Your task to perform on an android device: Search for bose quietcomfort 35 on amazon.com, select the first entry, and add it to the cart. Image 0: 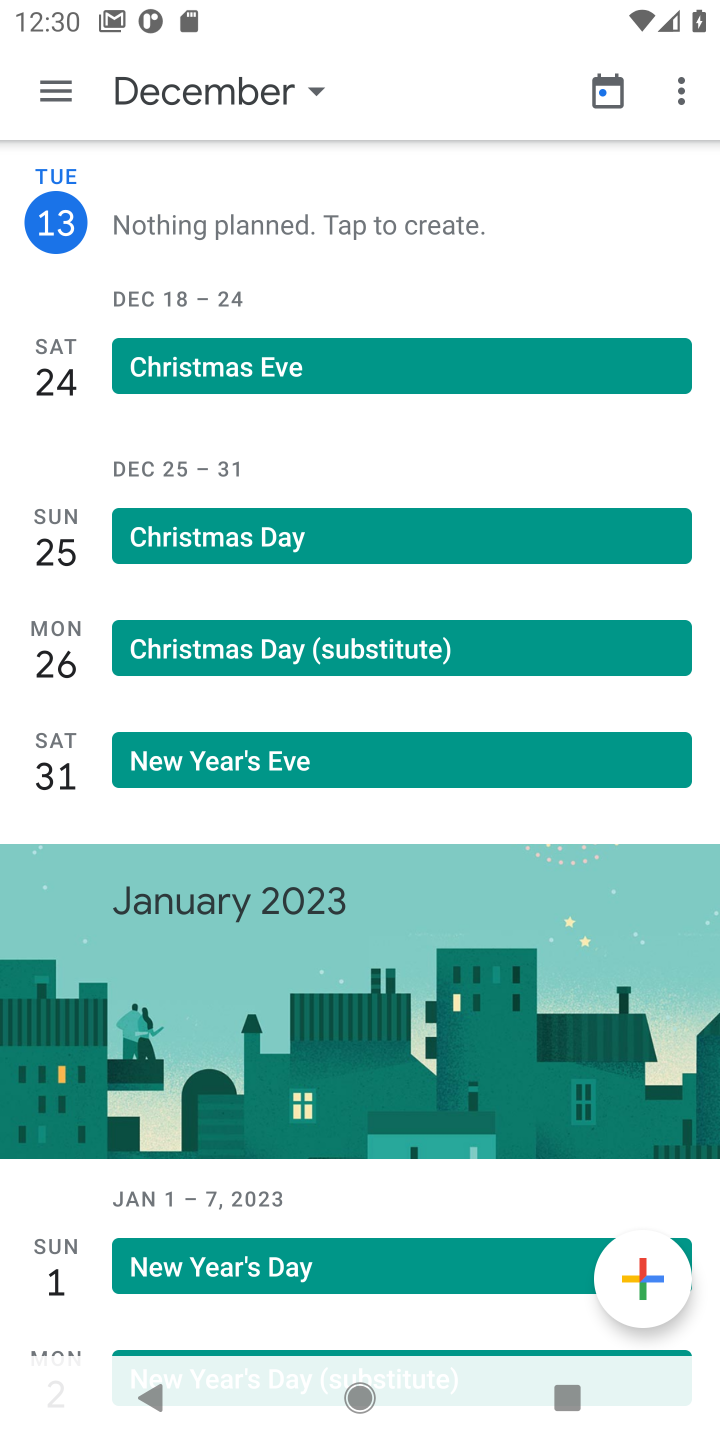
Step 0: press home button
Your task to perform on an android device: Search for bose quietcomfort 35 on amazon.com, select the first entry, and add it to the cart. Image 1: 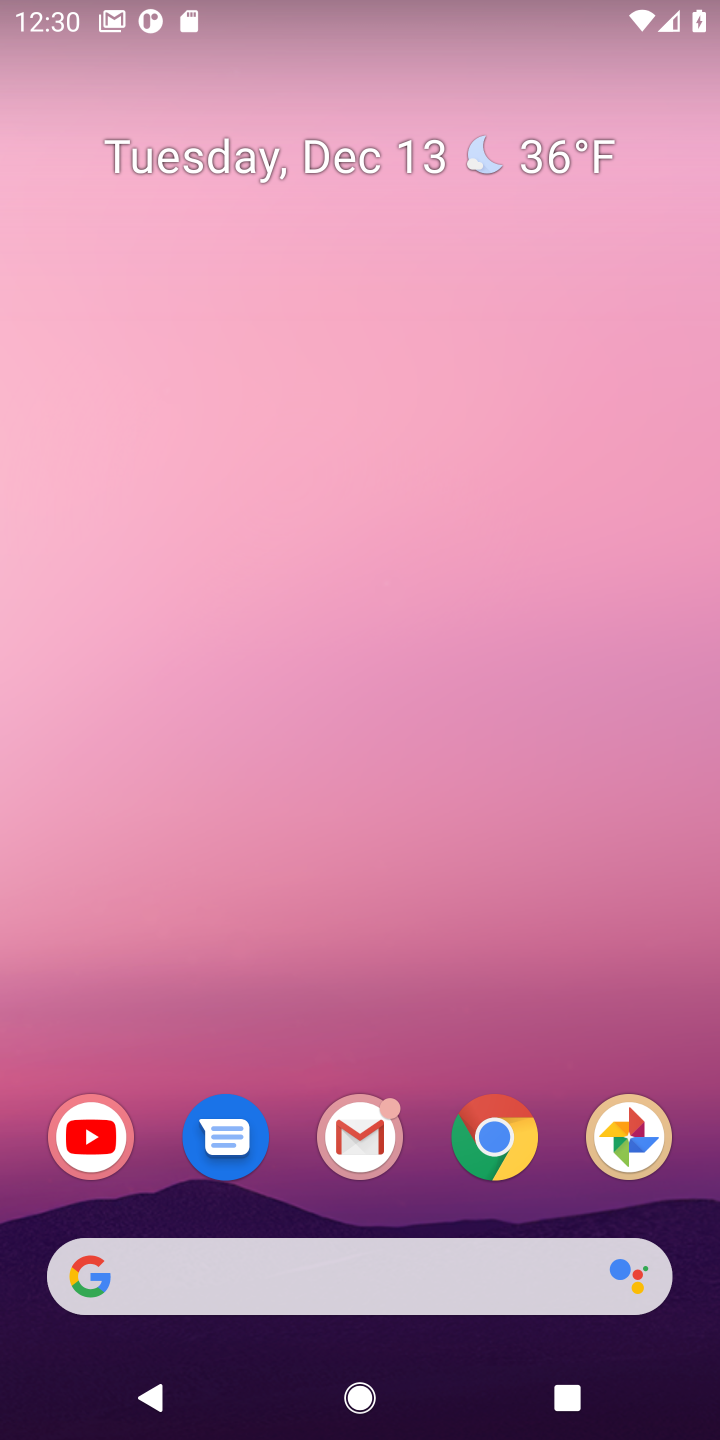
Step 1: click (286, 1248)
Your task to perform on an android device: Search for bose quietcomfort 35 on amazon.com, select the first entry, and add it to the cart. Image 2: 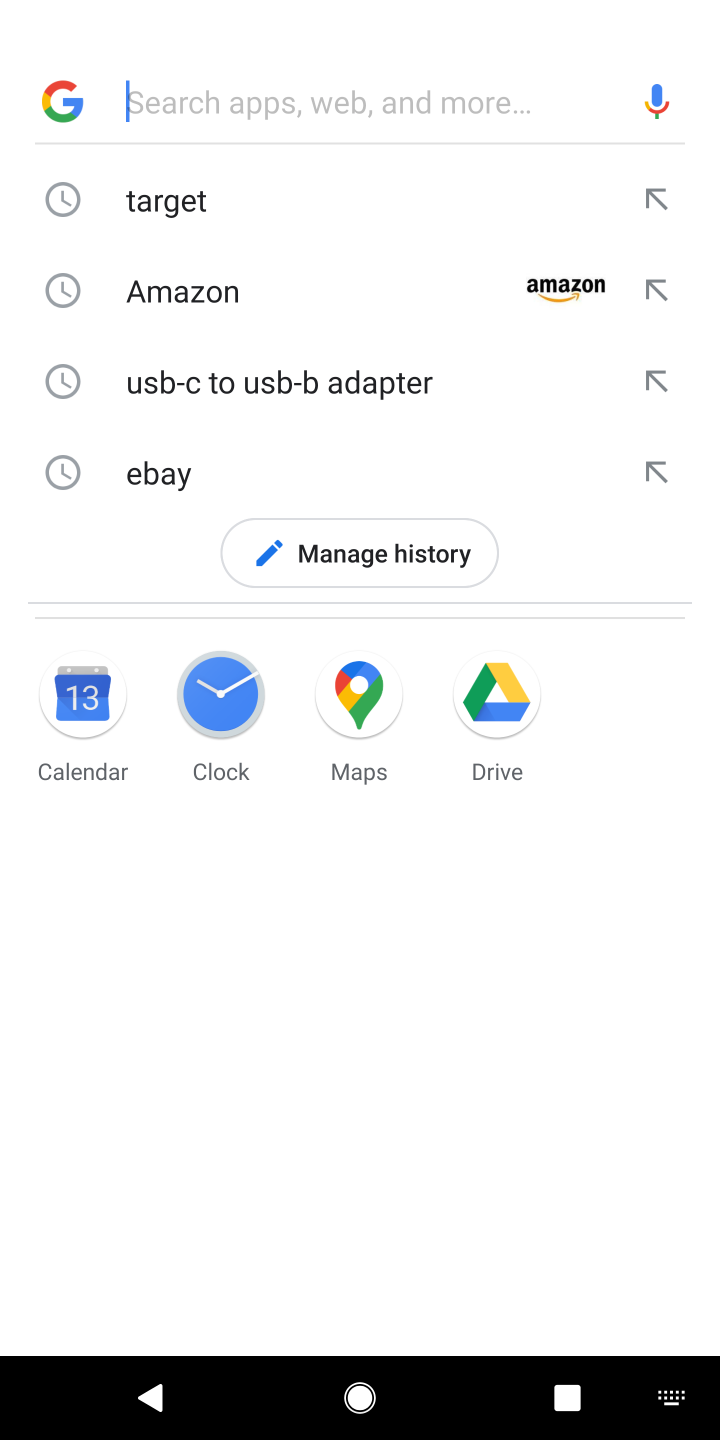
Step 2: click (356, 308)
Your task to perform on an android device: Search for bose quietcomfort 35 on amazon.com, select the first entry, and add it to the cart. Image 3: 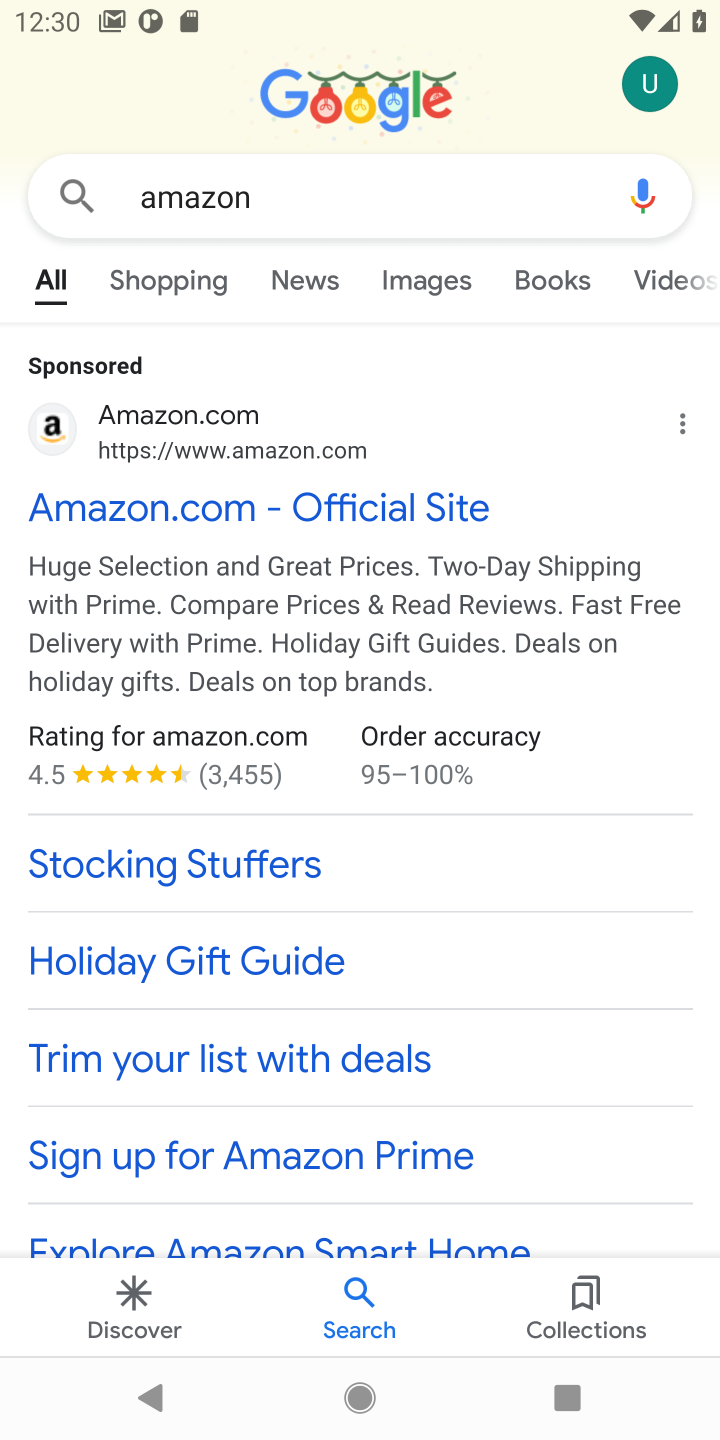
Step 3: click (245, 508)
Your task to perform on an android device: Search for bose quietcomfort 35 on amazon.com, select the first entry, and add it to the cart. Image 4: 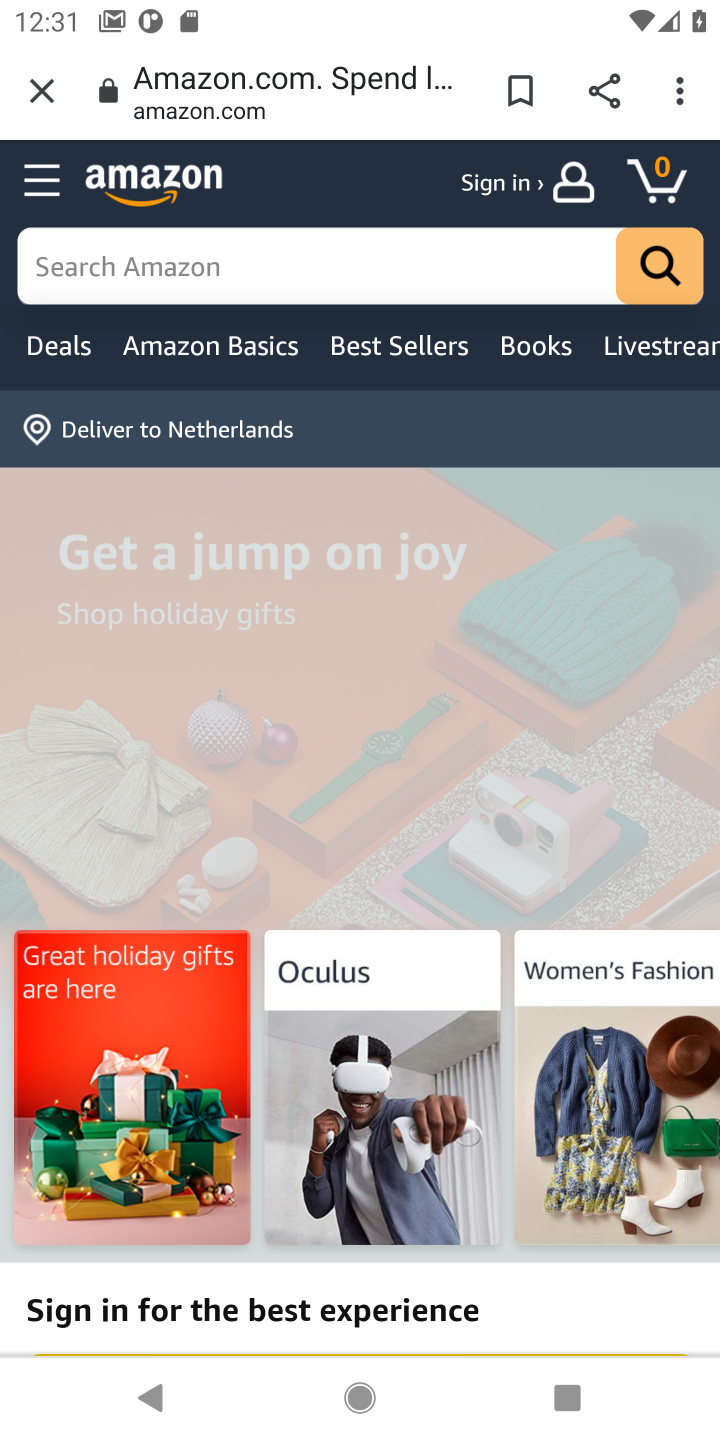
Step 4: click (226, 273)
Your task to perform on an android device: Search for bose quietcomfort 35 on amazon.com, select the first entry, and add it to the cart. Image 5: 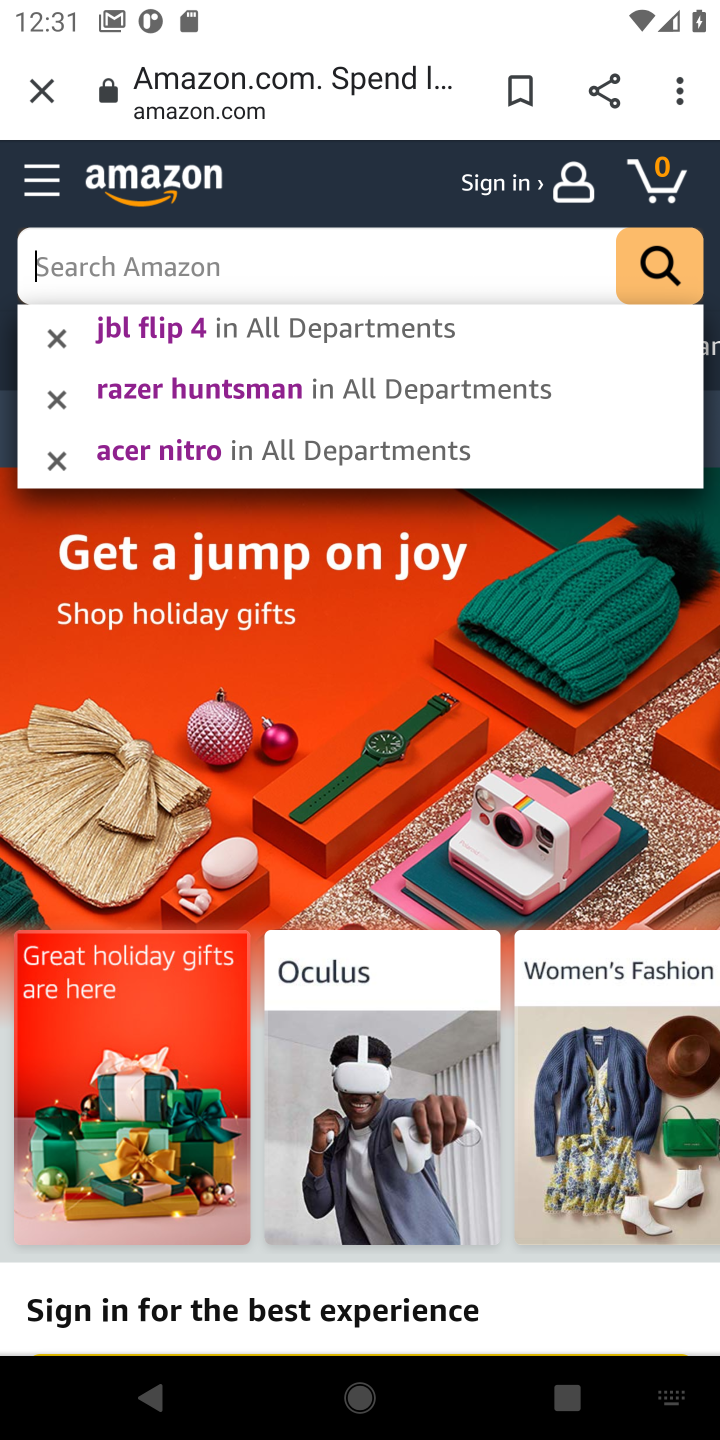
Step 5: type "quietcomfort 35"
Your task to perform on an android device: Search for bose quietcomfort 35 on amazon.com, select the first entry, and add it to the cart. Image 6: 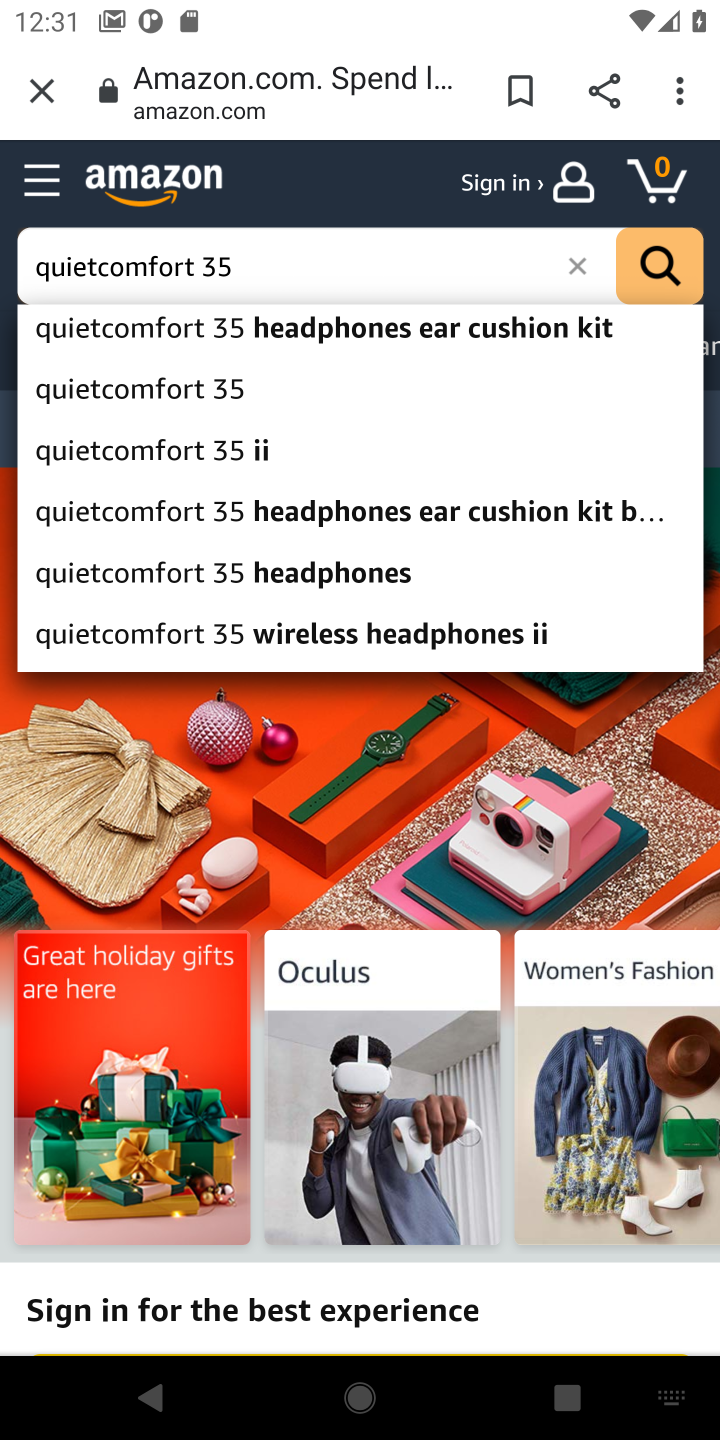
Step 6: click (258, 390)
Your task to perform on an android device: Search for bose quietcomfort 35 on amazon.com, select the first entry, and add it to the cart. Image 7: 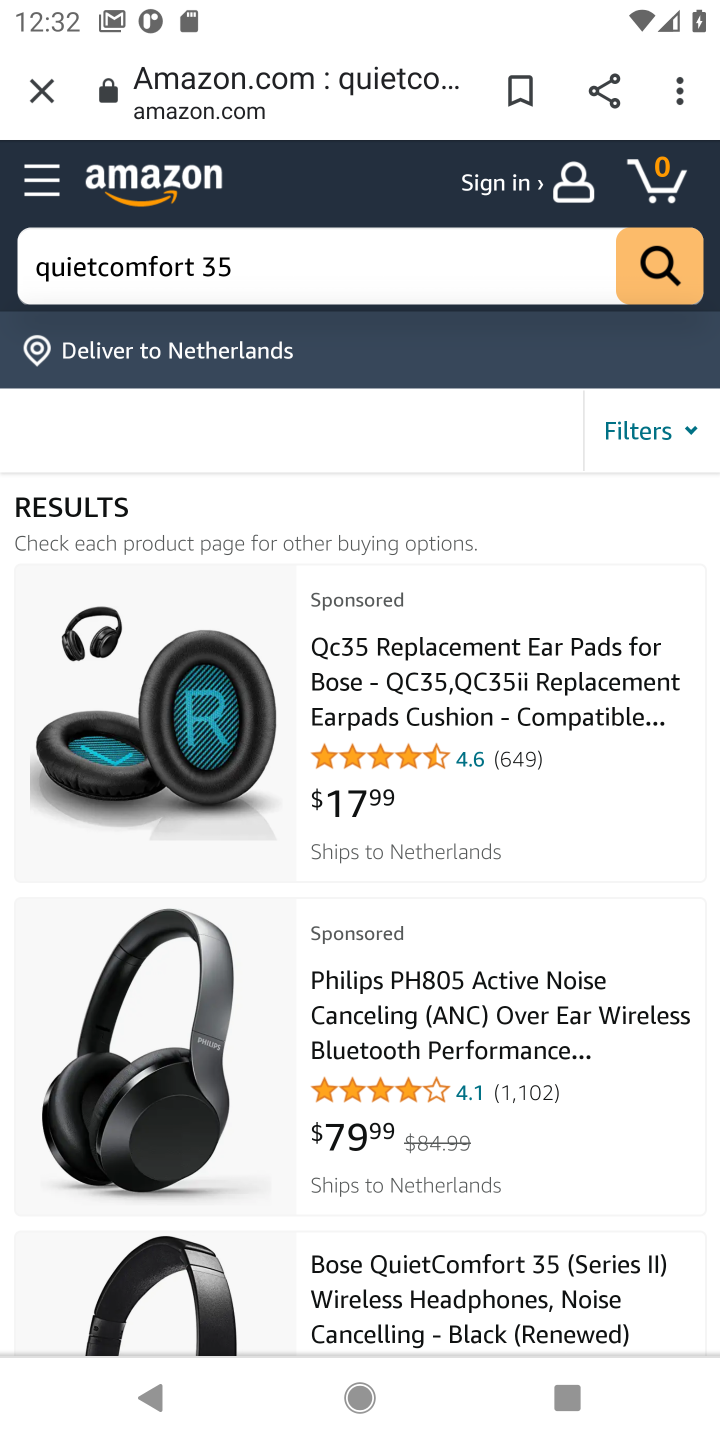
Step 7: click (339, 710)
Your task to perform on an android device: Search for bose quietcomfort 35 on amazon.com, select the first entry, and add it to the cart. Image 8: 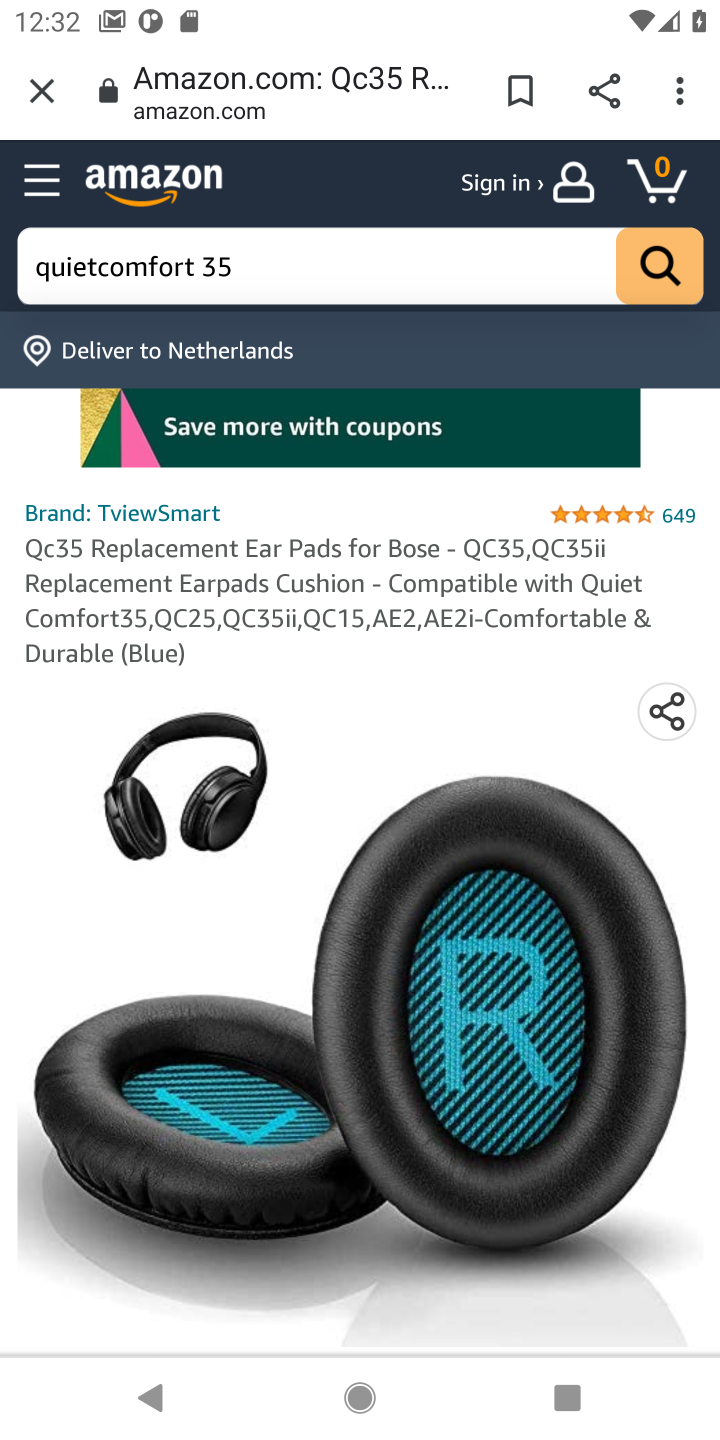
Step 8: drag from (360, 982) to (332, 153)
Your task to perform on an android device: Search for bose quietcomfort 35 on amazon.com, select the first entry, and add it to the cart. Image 9: 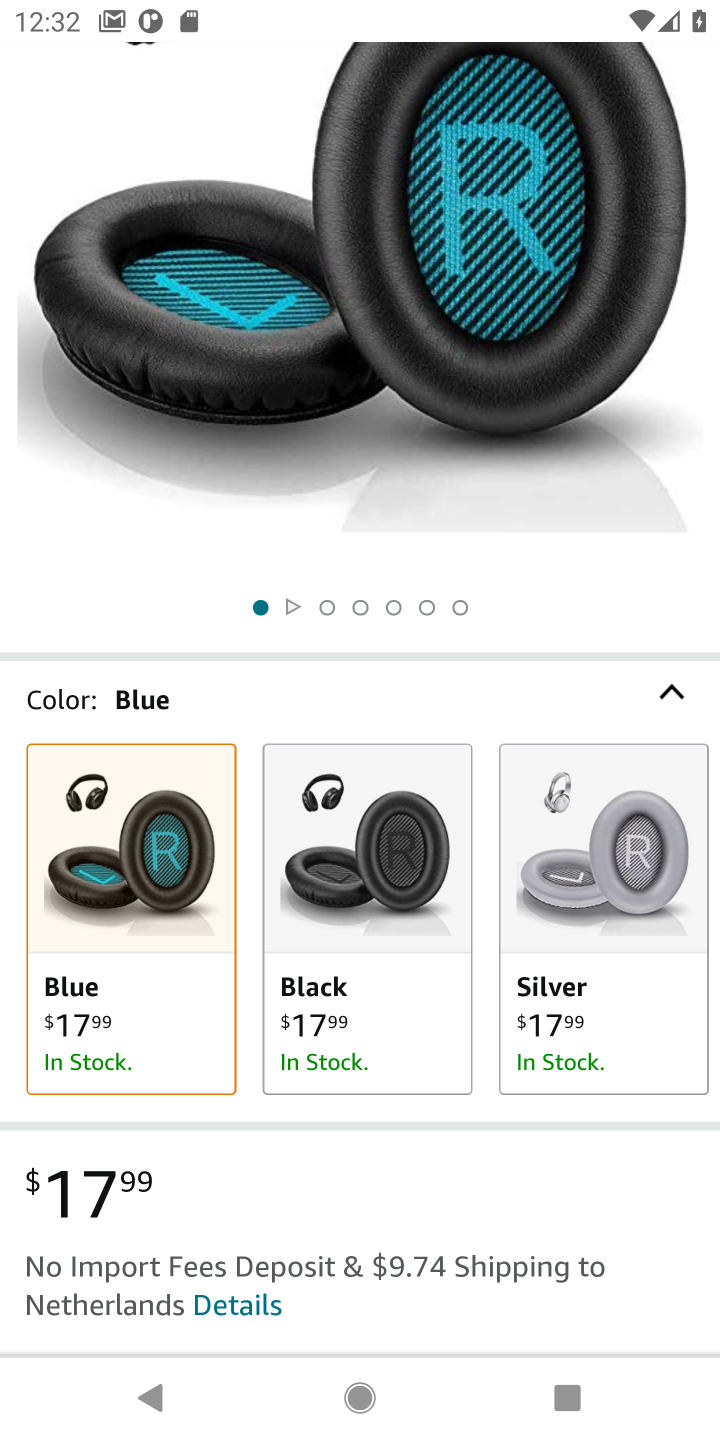
Step 9: drag from (347, 1153) to (320, 230)
Your task to perform on an android device: Search for bose quietcomfort 35 on amazon.com, select the first entry, and add it to the cart. Image 10: 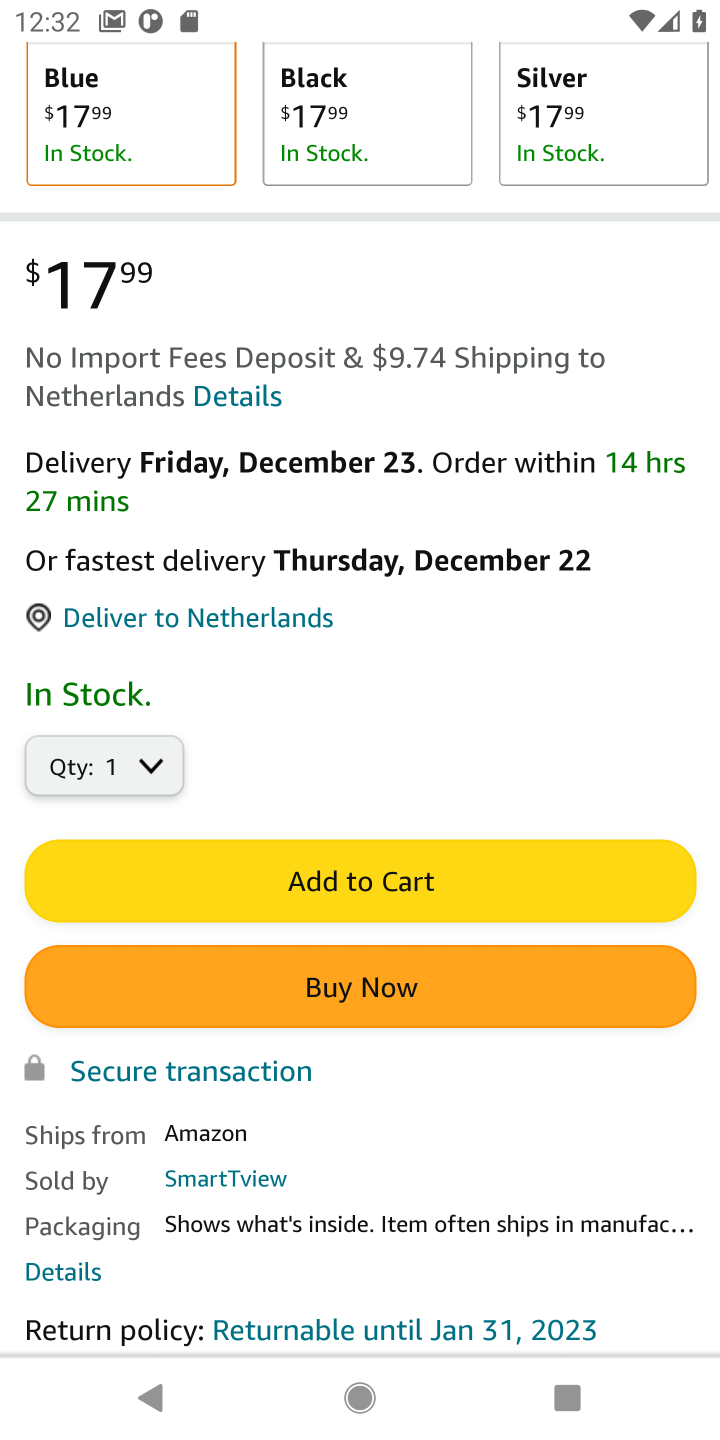
Step 10: click (461, 849)
Your task to perform on an android device: Search for bose quietcomfort 35 on amazon.com, select the first entry, and add it to the cart. Image 11: 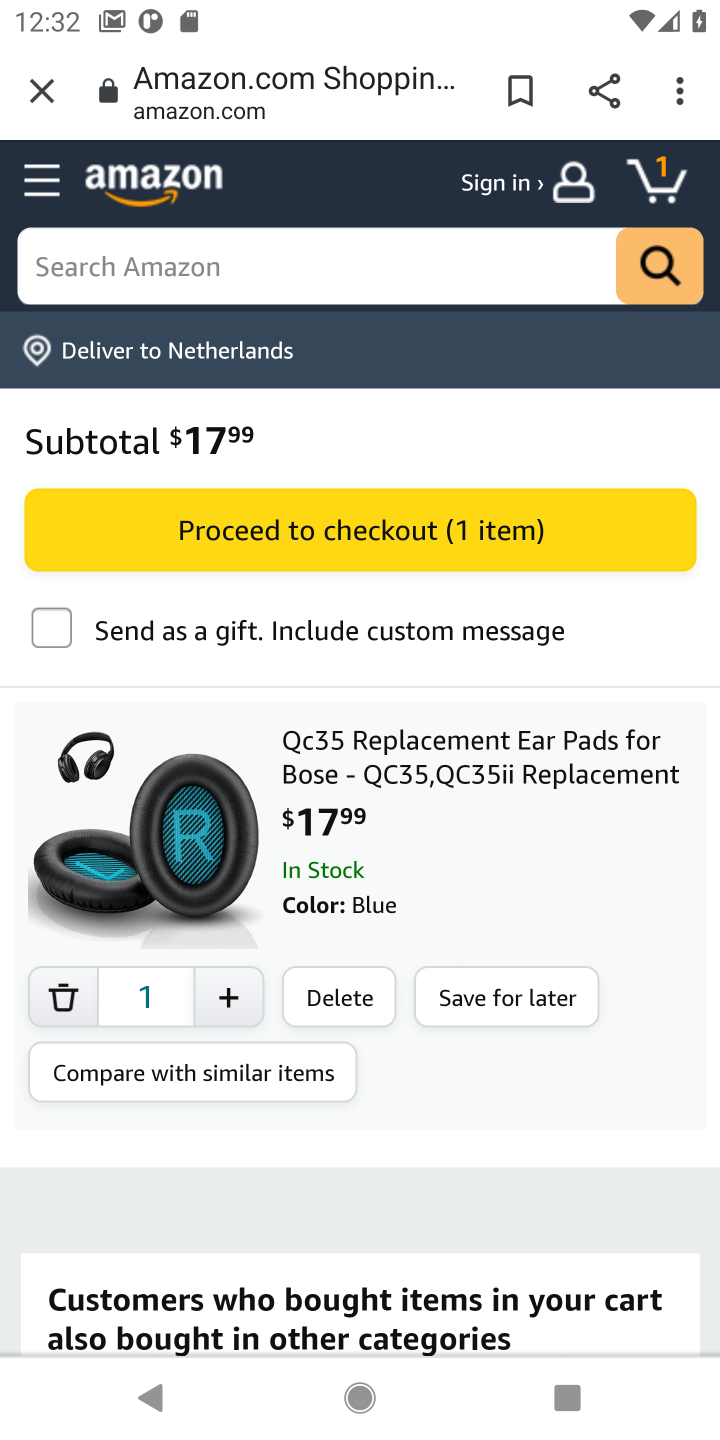
Step 11: task complete